Your task to perform on an android device: toggle pop-ups in chrome Image 0: 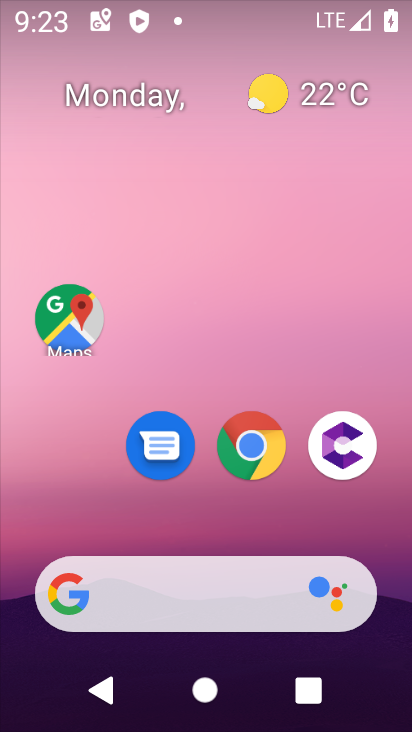
Step 0: drag from (328, 508) to (380, 156)
Your task to perform on an android device: toggle pop-ups in chrome Image 1: 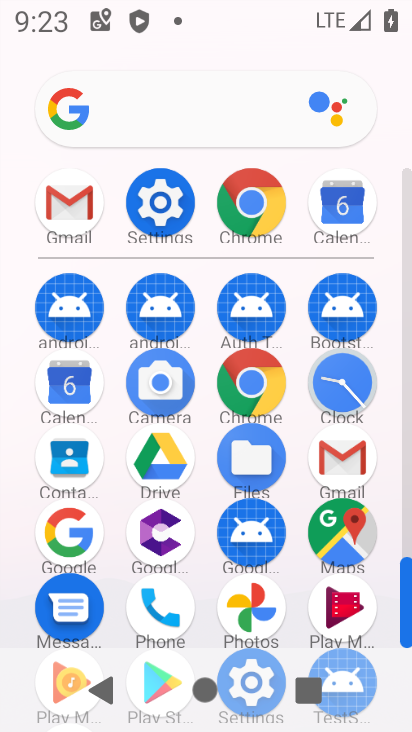
Step 1: click (259, 200)
Your task to perform on an android device: toggle pop-ups in chrome Image 2: 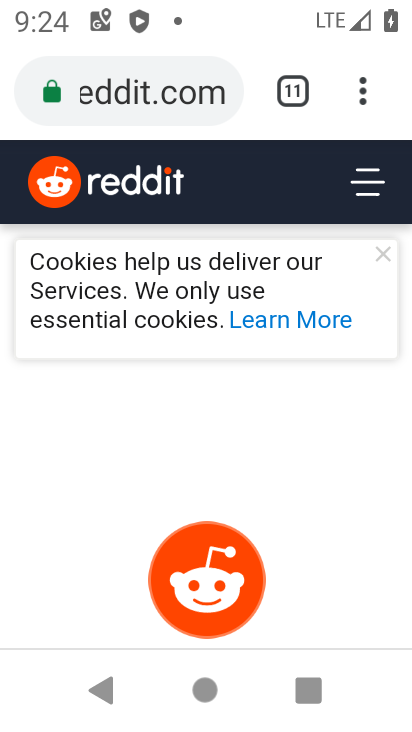
Step 2: drag from (360, 97) to (118, 452)
Your task to perform on an android device: toggle pop-ups in chrome Image 3: 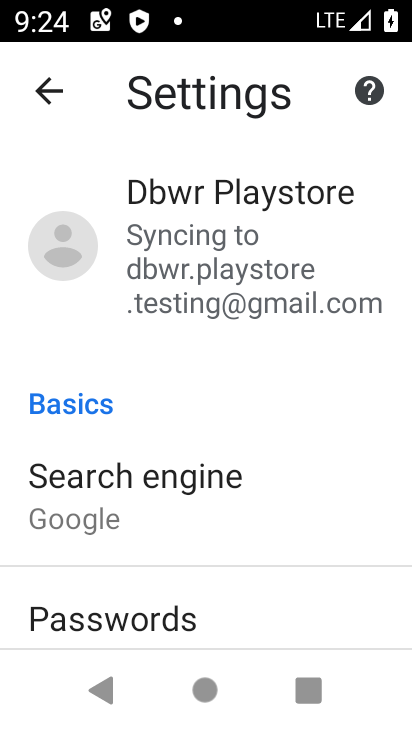
Step 3: drag from (273, 576) to (315, 211)
Your task to perform on an android device: toggle pop-ups in chrome Image 4: 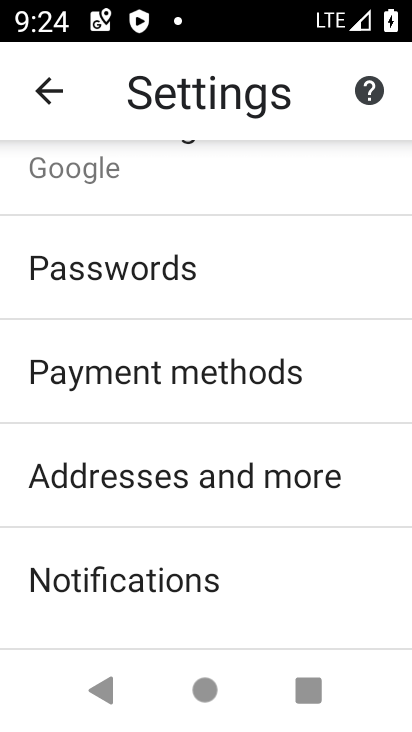
Step 4: drag from (288, 557) to (362, 122)
Your task to perform on an android device: toggle pop-ups in chrome Image 5: 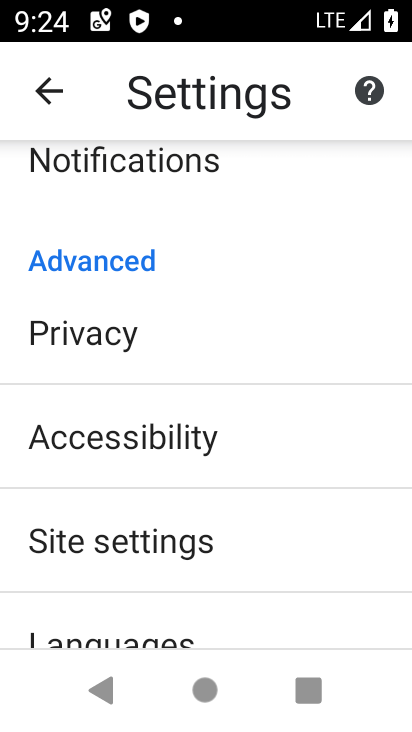
Step 5: click (147, 552)
Your task to perform on an android device: toggle pop-ups in chrome Image 6: 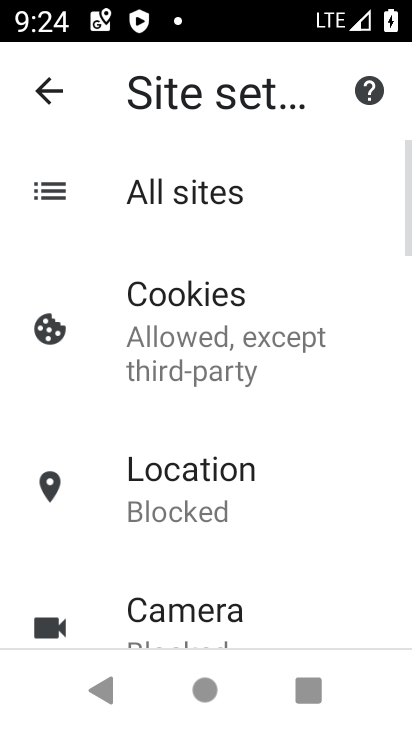
Step 6: drag from (316, 543) to (365, 83)
Your task to perform on an android device: toggle pop-ups in chrome Image 7: 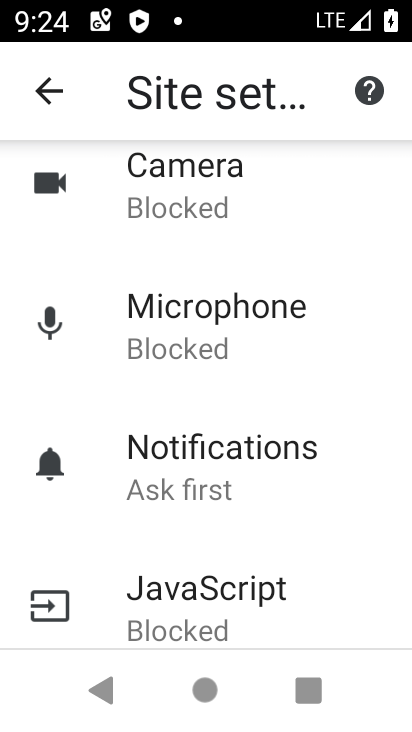
Step 7: drag from (281, 516) to (292, 170)
Your task to perform on an android device: toggle pop-ups in chrome Image 8: 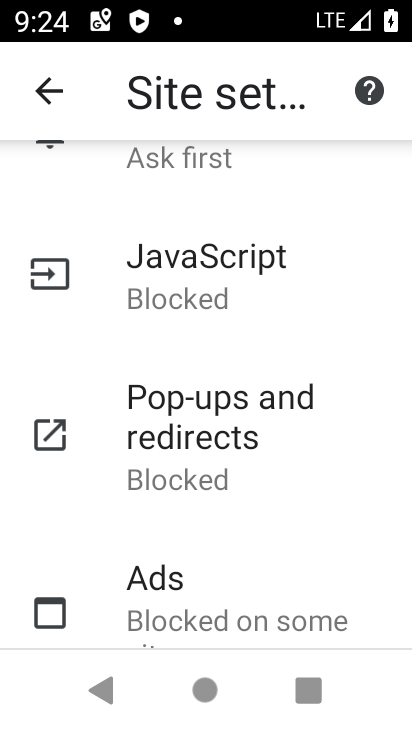
Step 8: click (224, 434)
Your task to perform on an android device: toggle pop-ups in chrome Image 9: 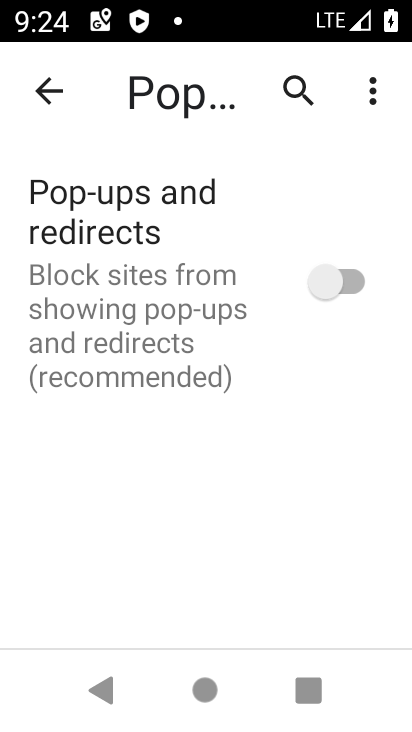
Step 9: click (324, 284)
Your task to perform on an android device: toggle pop-ups in chrome Image 10: 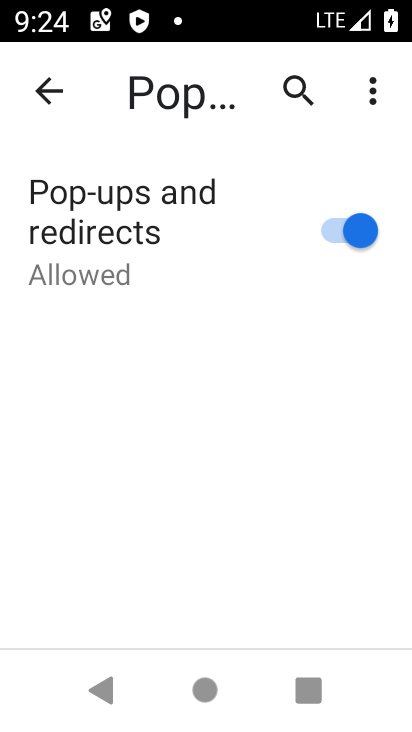
Step 10: task complete